Your task to perform on an android device: visit the assistant section in the google photos Image 0: 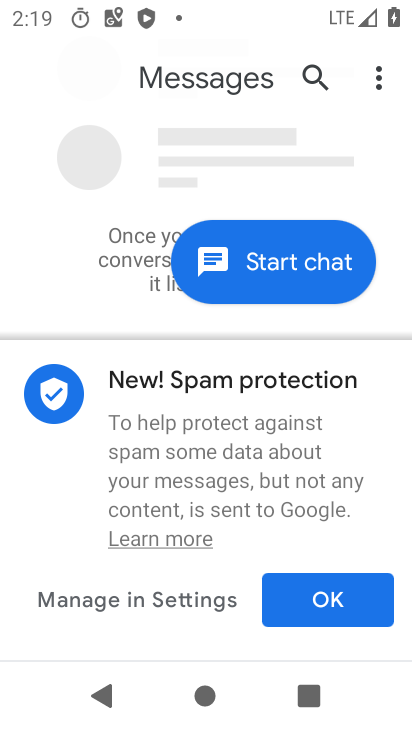
Step 0: press home button
Your task to perform on an android device: visit the assistant section in the google photos Image 1: 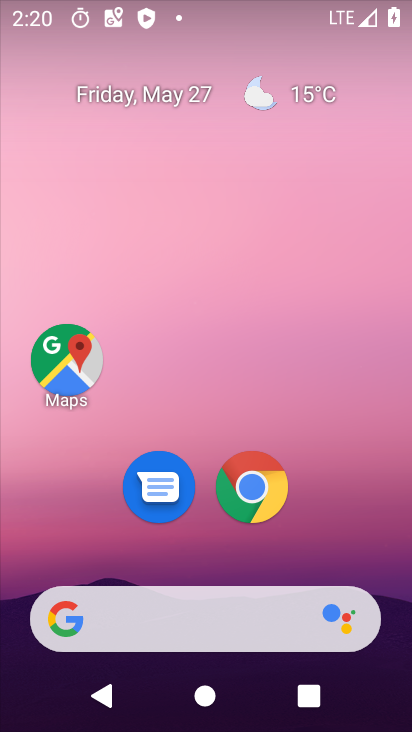
Step 1: drag from (356, 485) to (313, 101)
Your task to perform on an android device: visit the assistant section in the google photos Image 2: 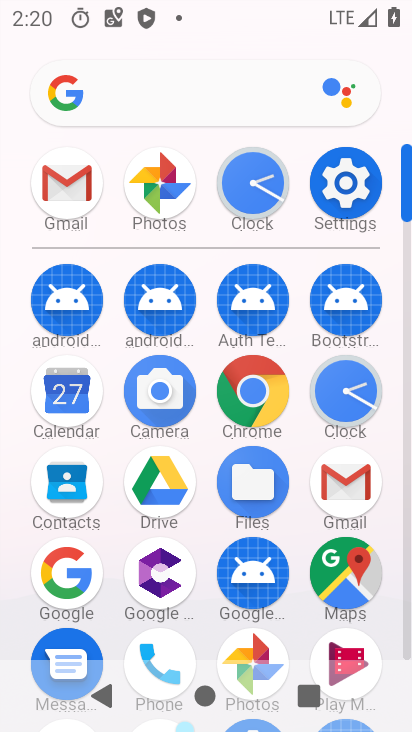
Step 2: click (167, 207)
Your task to perform on an android device: visit the assistant section in the google photos Image 3: 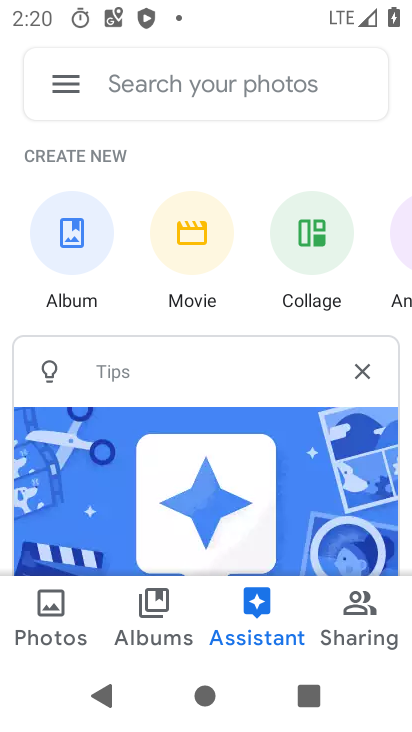
Step 3: click (63, 83)
Your task to perform on an android device: visit the assistant section in the google photos Image 4: 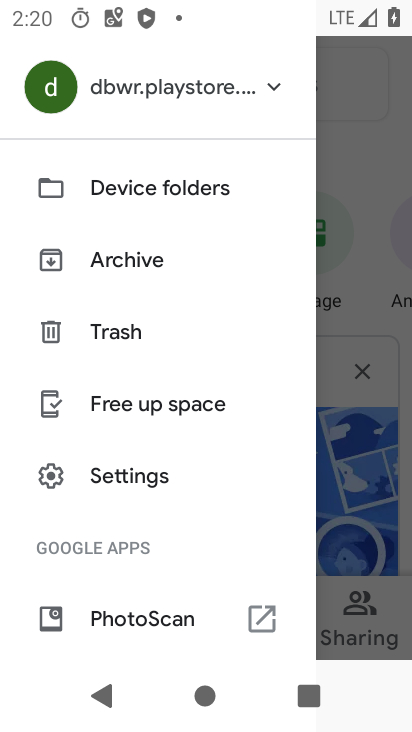
Step 4: drag from (151, 580) to (199, 135)
Your task to perform on an android device: visit the assistant section in the google photos Image 5: 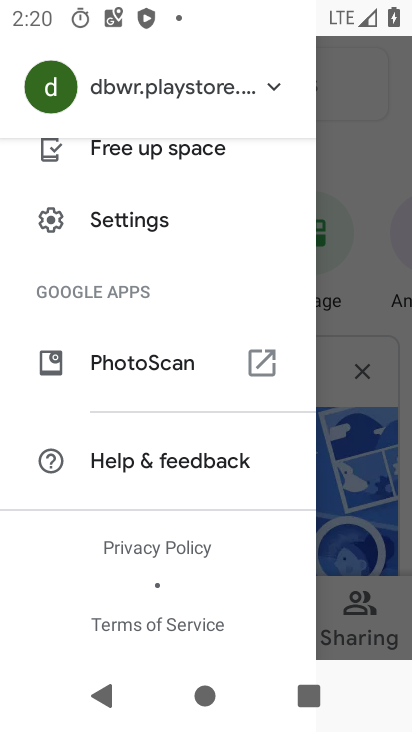
Step 5: drag from (143, 272) to (182, 503)
Your task to perform on an android device: visit the assistant section in the google photos Image 6: 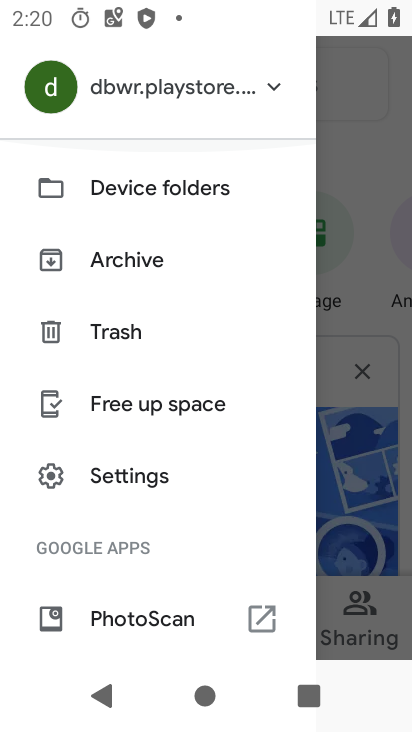
Step 6: click (328, 463)
Your task to perform on an android device: visit the assistant section in the google photos Image 7: 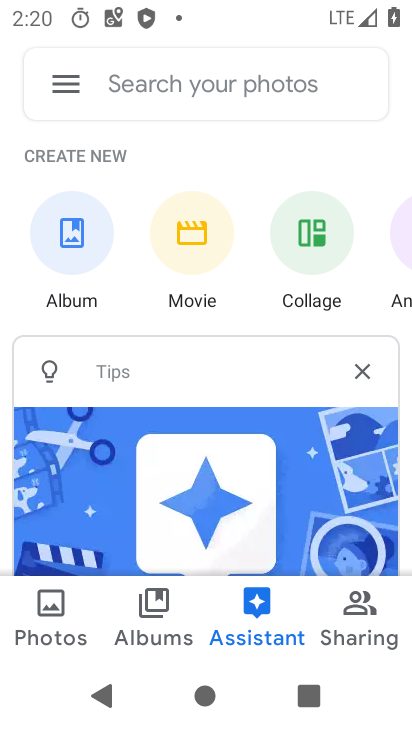
Step 7: click (262, 621)
Your task to perform on an android device: visit the assistant section in the google photos Image 8: 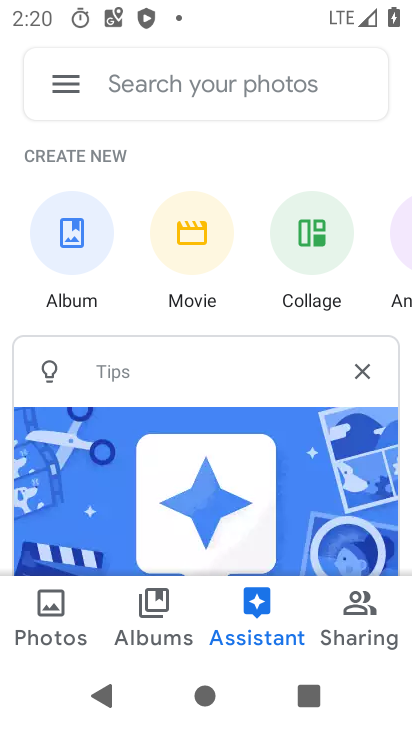
Step 8: task complete